Your task to perform on an android device: turn on the 12-hour format for clock Image 0: 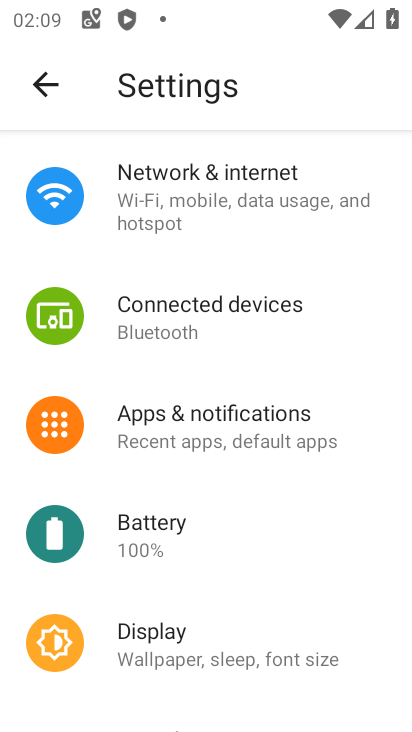
Step 0: press home button
Your task to perform on an android device: turn on the 12-hour format for clock Image 1: 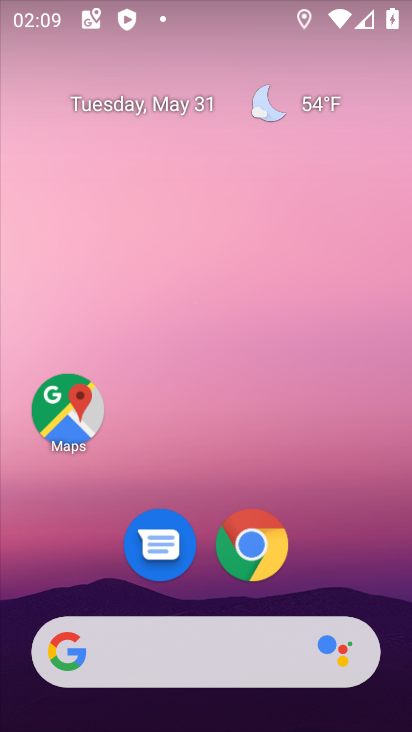
Step 1: drag from (322, 578) to (280, 103)
Your task to perform on an android device: turn on the 12-hour format for clock Image 2: 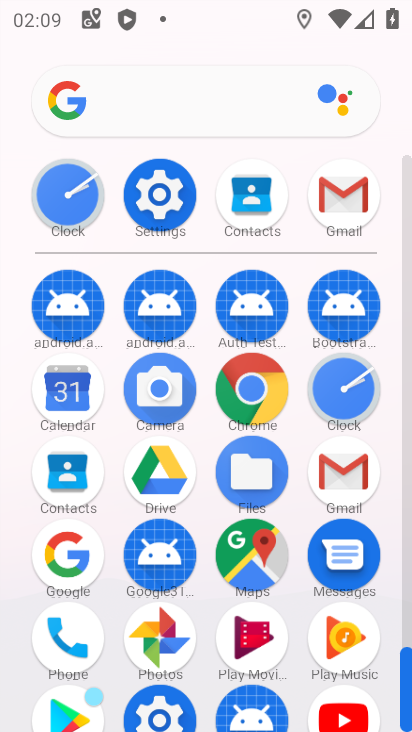
Step 2: click (78, 196)
Your task to perform on an android device: turn on the 12-hour format for clock Image 3: 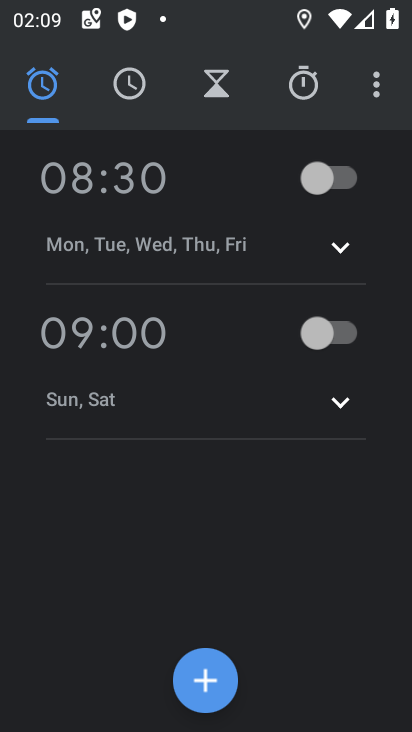
Step 3: click (375, 106)
Your task to perform on an android device: turn on the 12-hour format for clock Image 4: 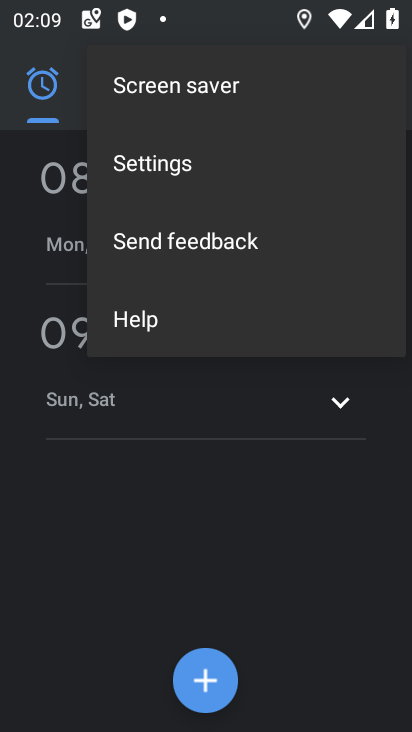
Step 4: click (178, 163)
Your task to perform on an android device: turn on the 12-hour format for clock Image 5: 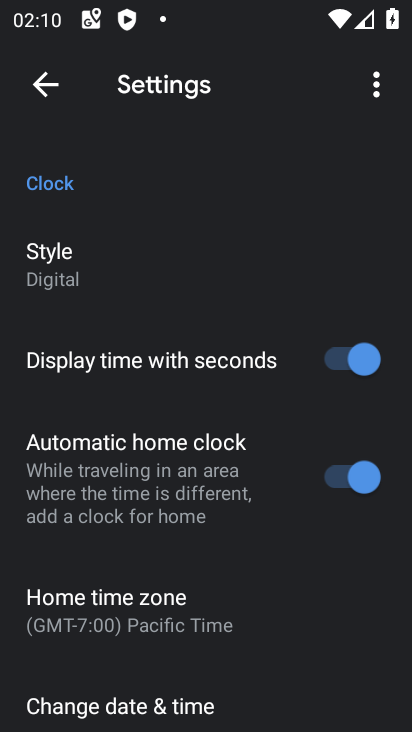
Step 5: drag from (179, 610) to (165, 363)
Your task to perform on an android device: turn on the 12-hour format for clock Image 6: 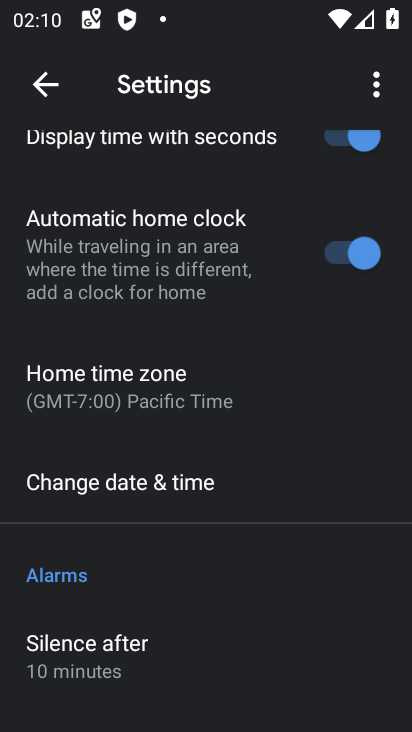
Step 6: drag from (182, 646) to (134, 633)
Your task to perform on an android device: turn on the 12-hour format for clock Image 7: 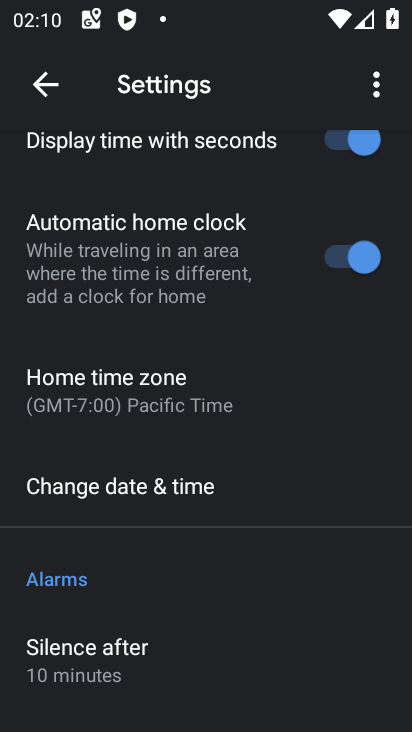
Step 7: click (135, 498)
Your task to perform on an android device: turn on the 12-hour format for clock Image 8: 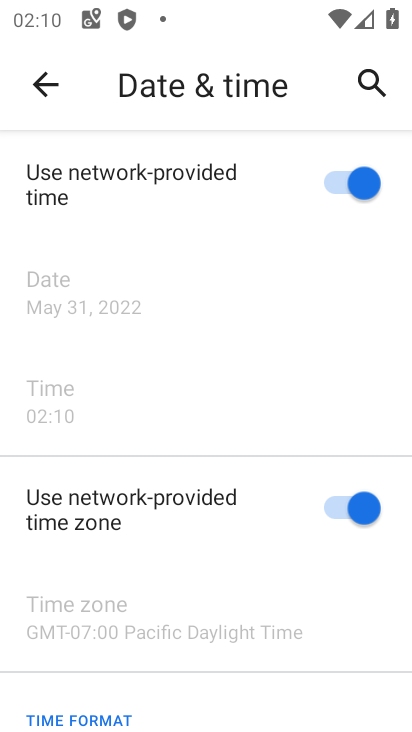
Step 8: drag from (159, 614) to (153, 310)
Your task to perform on an android device: turn on the 12-hour format for clock Image 9: 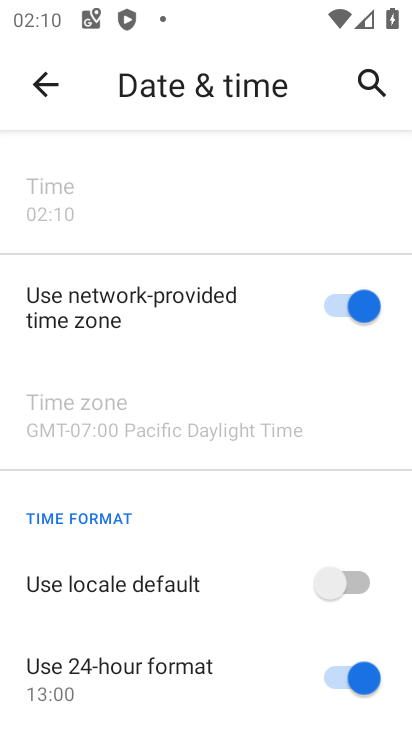
Step 9: click (341, 663)
Your task to perform on an android device: turn on the 12-hour format for clock Image 10: 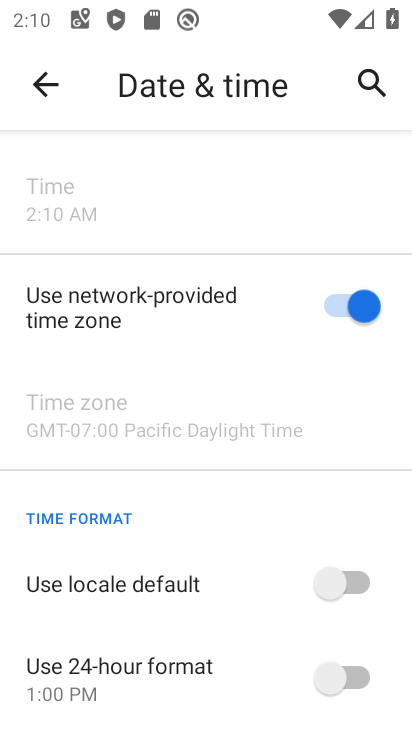
Step 10: task complete